Your task to perform on an android device: move a message to another label in the gmail app Image 0: 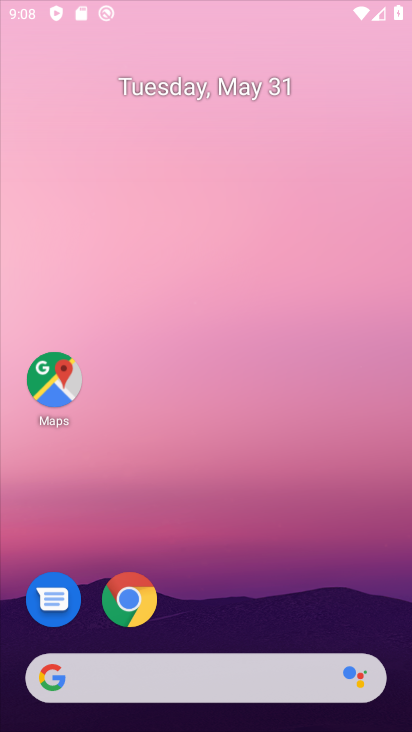
Step 0: click (38, 382)
Your task to perform on an android device: move a message to another label in the gmail app Image 1: 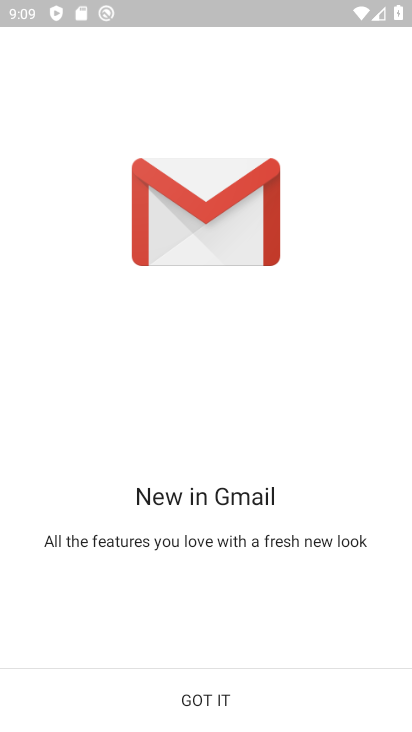
Step 1: click (190, 696)
Your task to perform on an android device: move a message to another label in the gmail app Image 2: 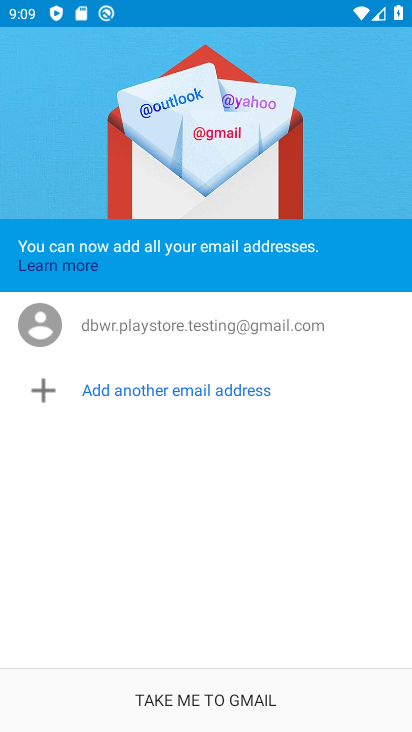
Step 2: click (190, 696)
Your task to perform on an android device: move a message to another label in the gmail app Image 3: 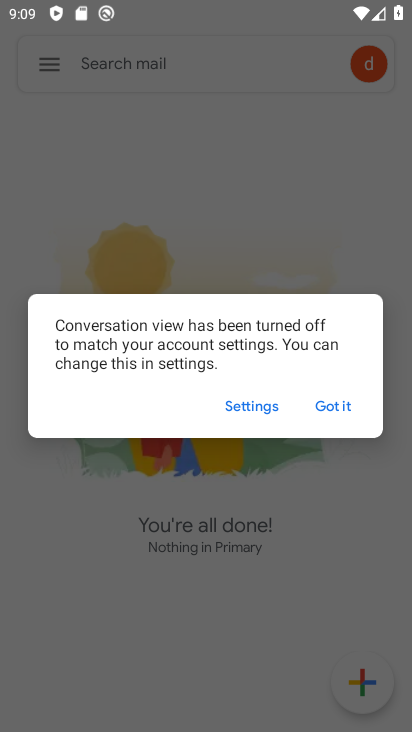
Step 3: click (342, 410)
Your task to perform on an android device: move a message to another label in the gmail app Image 4: 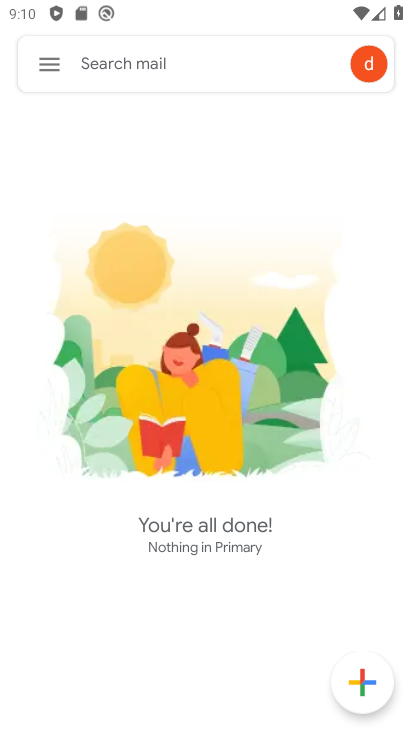
Step 4: click (45, 60)
Your task to perform on an android device: move a message to another label in the gmail app Image 5: 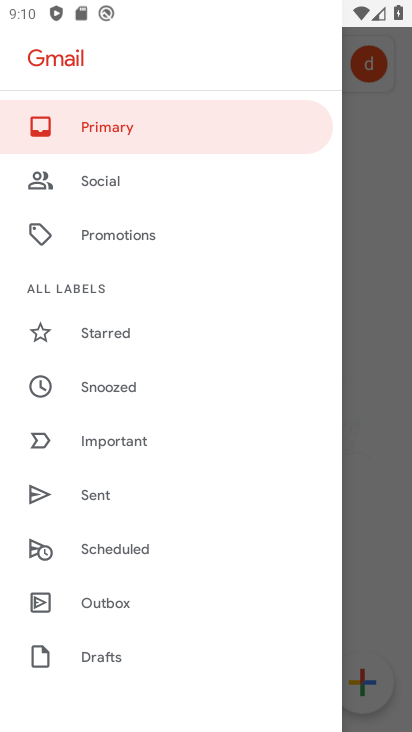
Step 5: drag from (129, 608) to (188, 194)
Your task to perform on an android device: move a message to another label in the gmail app Image 6: 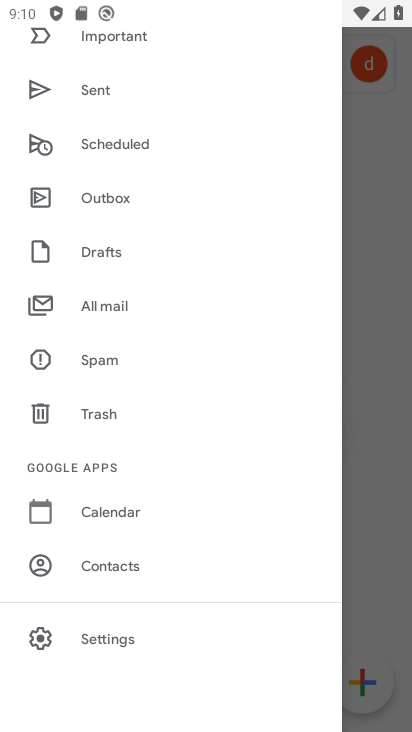
Step 6: click (104, 318)
Your task to perform on an android device: move a message to another label in the gmail app Image 7: 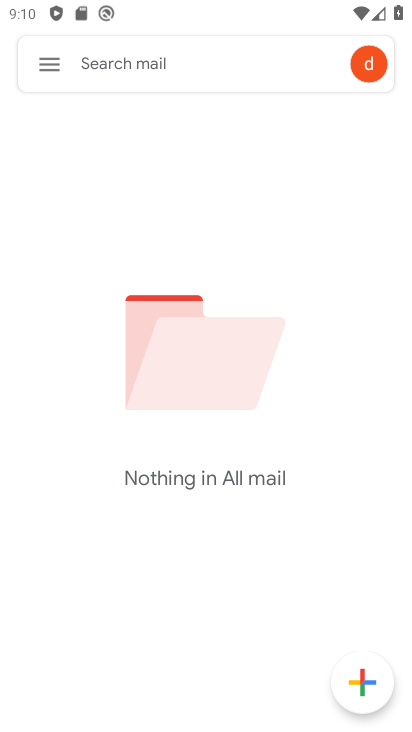
Step 7: task complete